Your task to perform on an android device: empty trash in the gmail app Image 0: 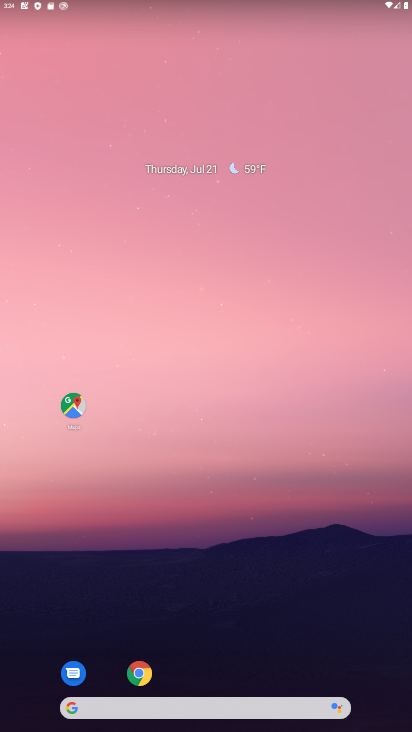
Step 0: drag from (371, 655) to (345, 121)
Your task to perform on an android device: empty trash in the gmail app Image 1: 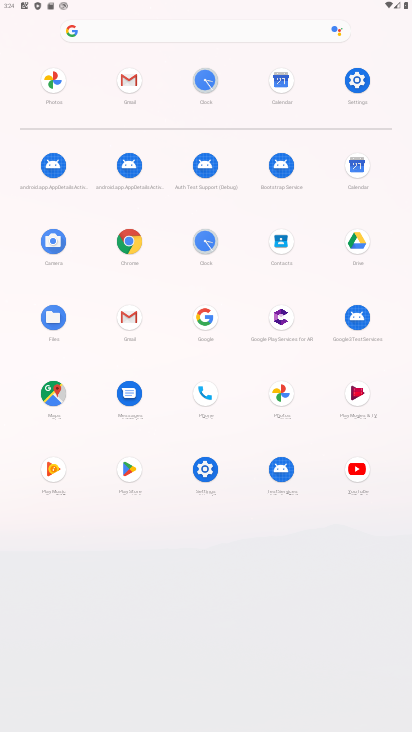
Step 1: click (129, 319)
Your task to perform on an android device: empty trash in the gmail app Image 2: 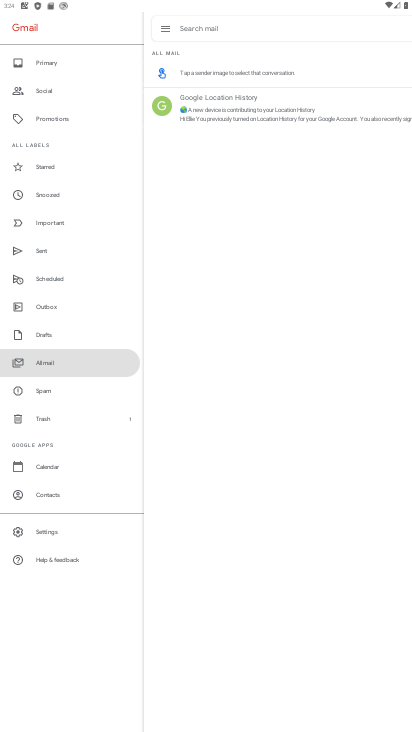
Step 2: click (43, 423)
Your task to perform on an android device: empty trash in the gmail app Image 3: 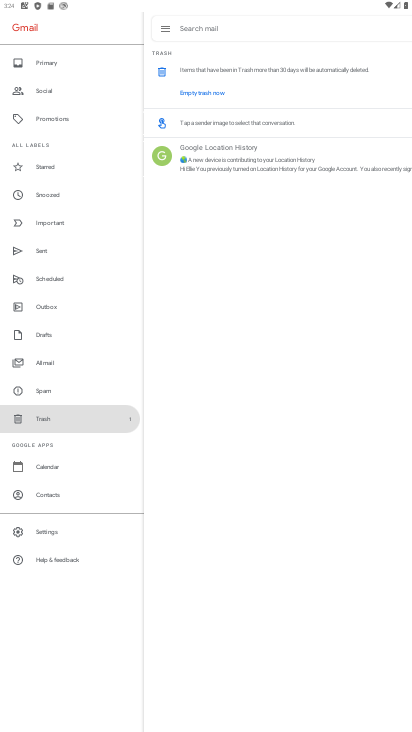
Step 3: click (202, 94)
Your task to perform on an android device: empty trash in the gmail app Image 4: 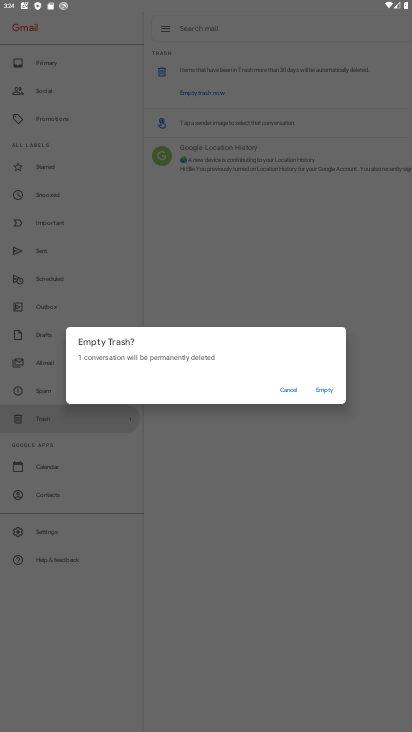
Step 4: click (323, 390)
Your task to perform on an android device: empty trash in the gmail app Image 5: 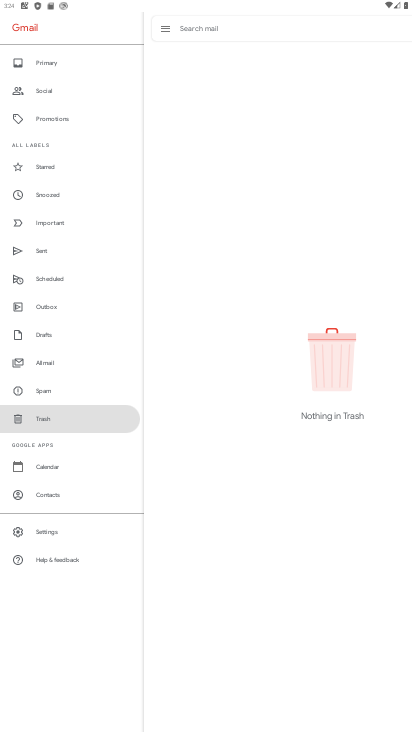
Step 5: task complete